Your task to perform on an android device: toggle improve location accuracy Image 0: 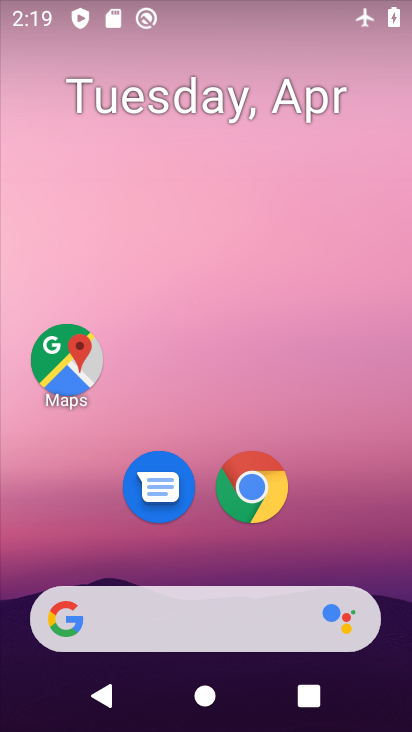
Step 0: drag from (325, 476) to (326, 155)
Your task to perform on an android device: toggle improve location accuracy Image 1: 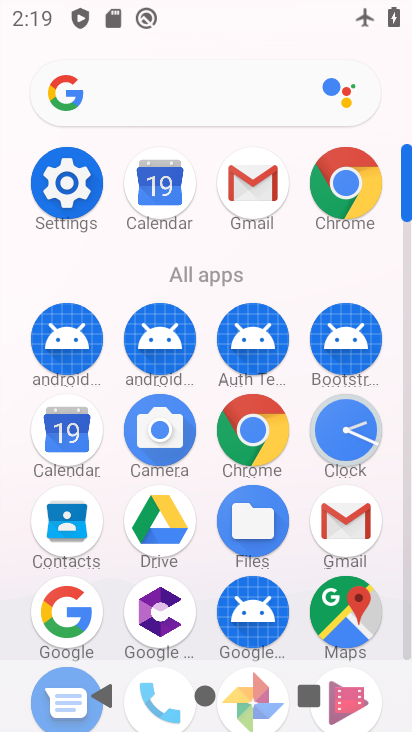
Step 1: click (61, 185)
Your task to perform on an android device: toggle improve location accuracy Image 2: 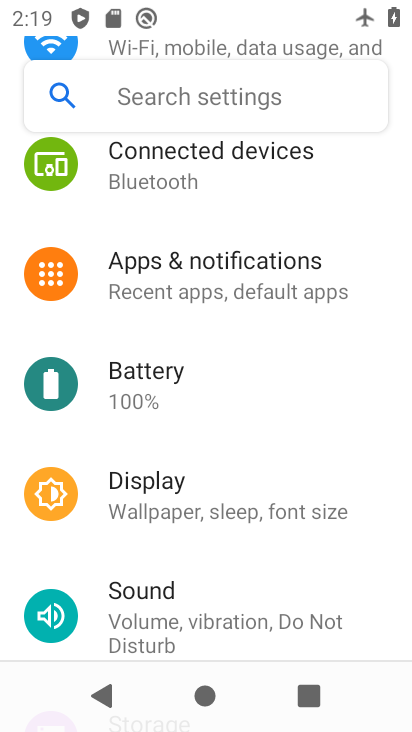
Step 2: drag from (253, 609) to (302, 280)
Your task to perform on an android device: toggle improve location accuracy Image 3: 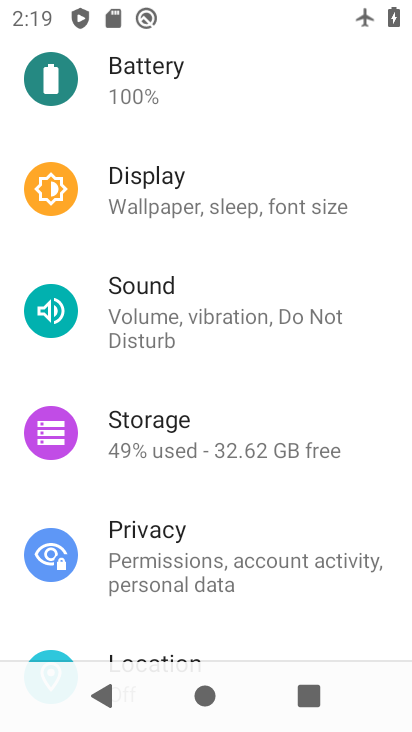
Step 3: drag from (250, 616) to (285, 376)
Your task to perform on an android device: toggle improve location accuracy Image 4: 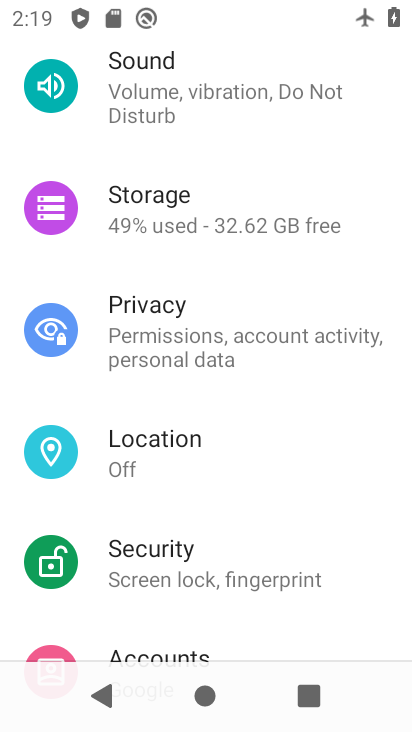
Step 4: click (227, 444)
Your task to perform on an android device: toggle improve location accuracy Image 5: 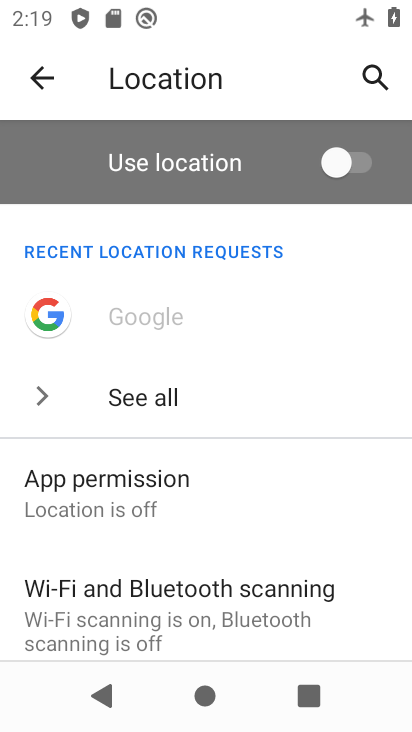
Step 5: drag from (242, 604) to (289, 352)
Your task to perform on an android device: toggle improve location accuracy Image 6: 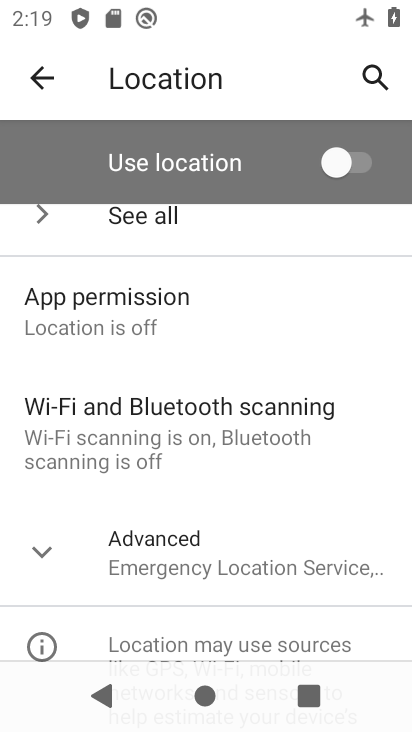
Step 6: click (45, 545)
Your task to perform on an android device: toggle improve location accuracy Image 7: 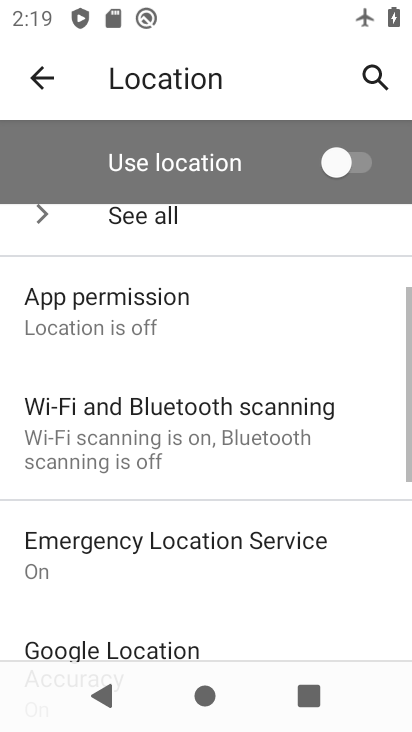
Step 7: drag from (168, 620) to (240, 297)
Your task to perform on an android device: toggle improve location accuracy Image 8: 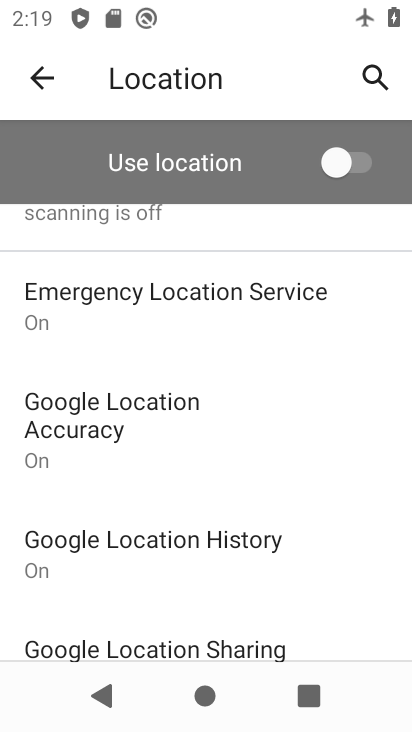
Step 8: drag from (198, 638) to (243, 359)
Your task to perform on an android device: toggle improve location accuracy Image 9: 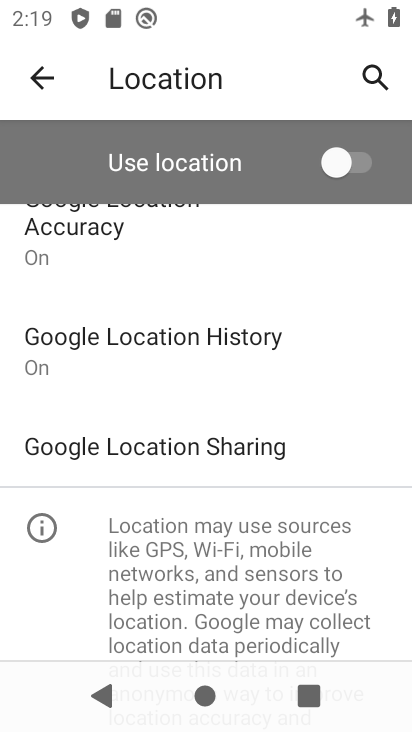
Step 9: click (186, 239)
Your task to perform on an android device: toggle improve location accuracy Image 10: 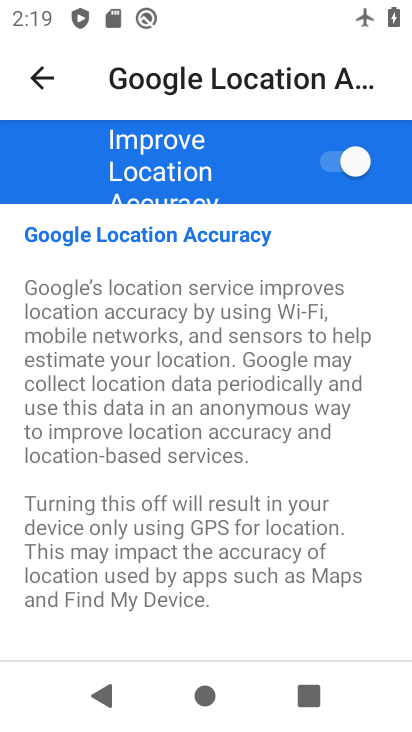
Step 10: click (342, 158)
Your task to perform on an android device: toggle improve location accuracy Image 11: 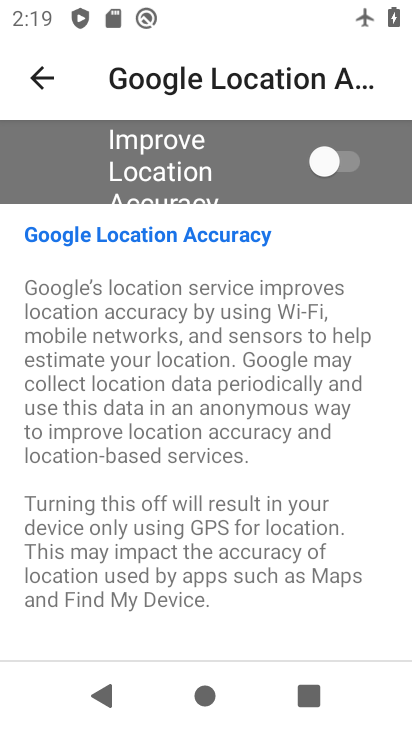
Step 11: task complete